Your task to perform on an android device: turn on airplane mode Image 0: 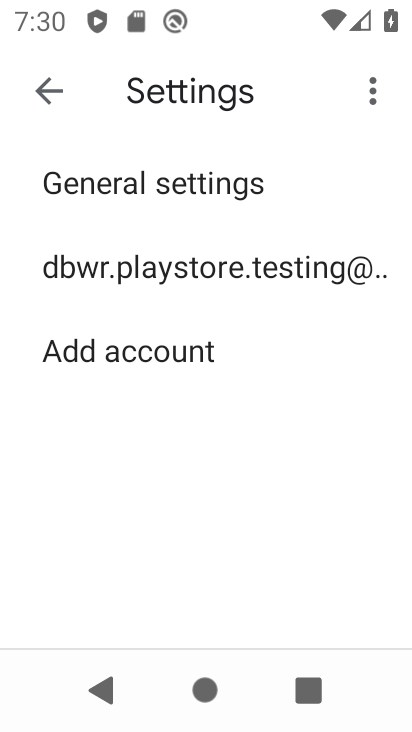
Step 0: press home button
Your task to perform on an android device: turn on airplane mode Image 1: 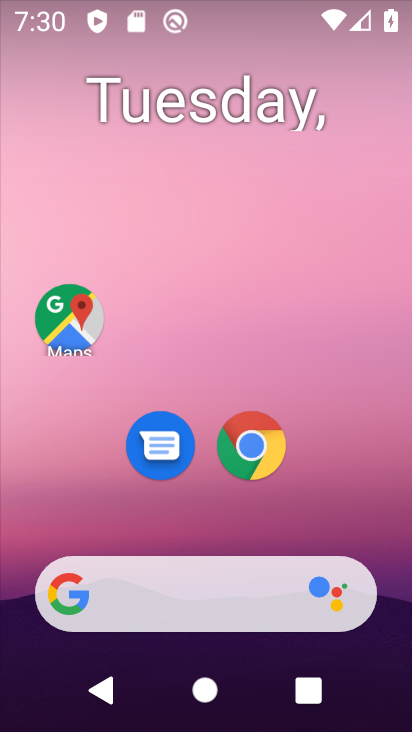
Step 1: drag from (204, 530) to (191, 23)
Your task to perform on an android device: turn on airplane mode Image 2: 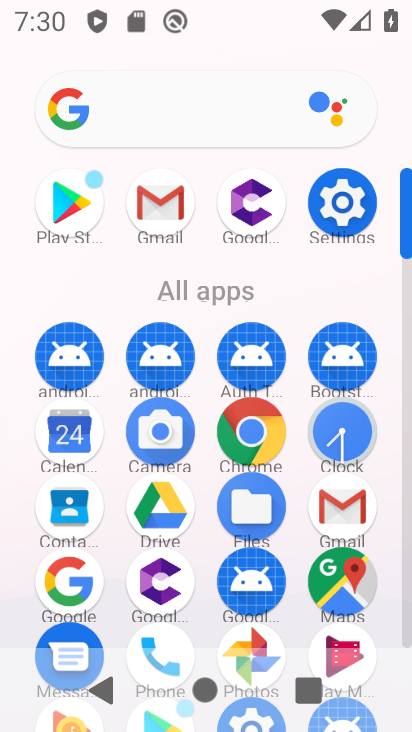
Step 2: click (334, 203)
Your task to perform on an android device: turn on airplane mode Image 3: 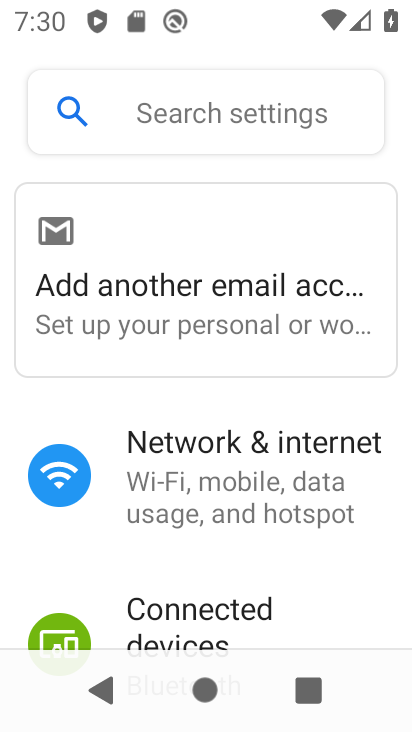
Step 3: click (235, 491)
Your task to perform on an android device: turn on airplane mode Image 4: 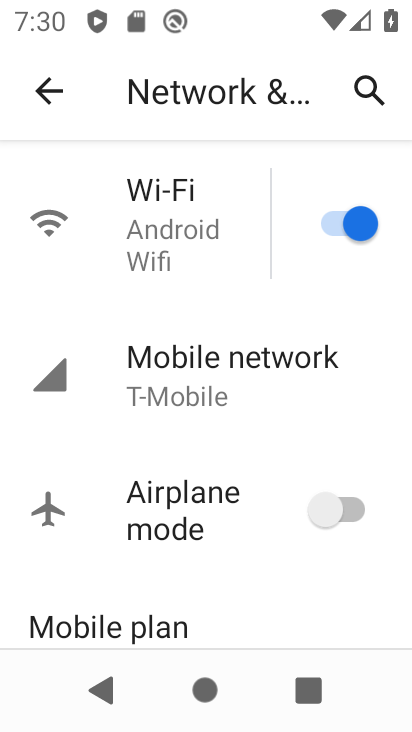
Step 4: click (344, 506)
Your task to perform on an android device: turn on airplane mode Image 5: 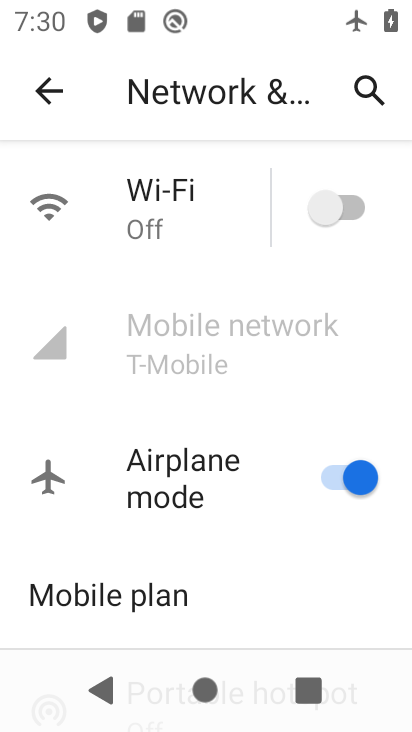
Step 5: task complete